Your task to perform on an android device: add a label to a message in the gmail app Image 0: 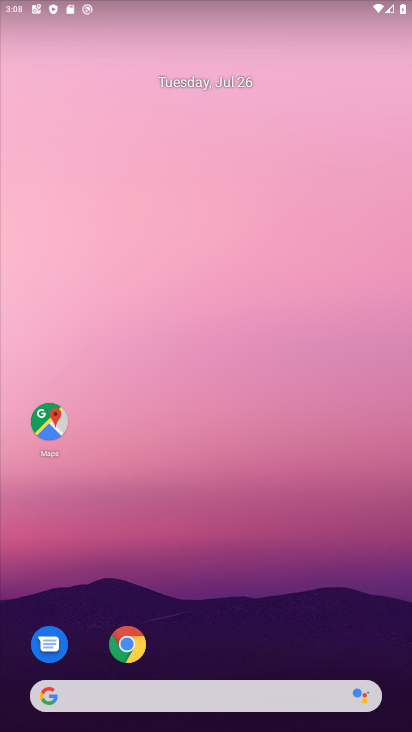
Step 0: drag from (225, 687) to (198, 179)
Your task to perform on an android device: add a label to a message in the gmail app Image 1: 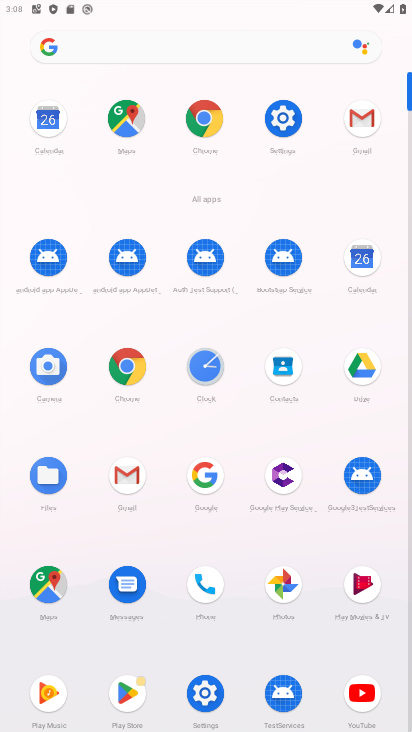
Step 1: click (369, 122)
Your task to perform on an android device: add a label to a message in the gmail app Image 2: 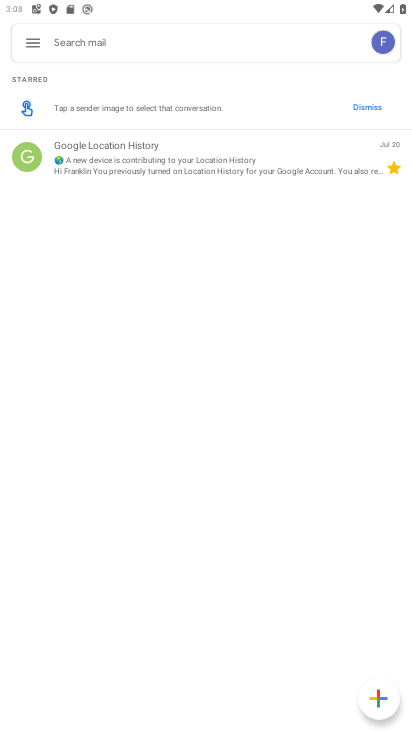
Step 2: click (24, 41)
Your task to perform on an android device: add a label to a message in the gmail app Image 3: 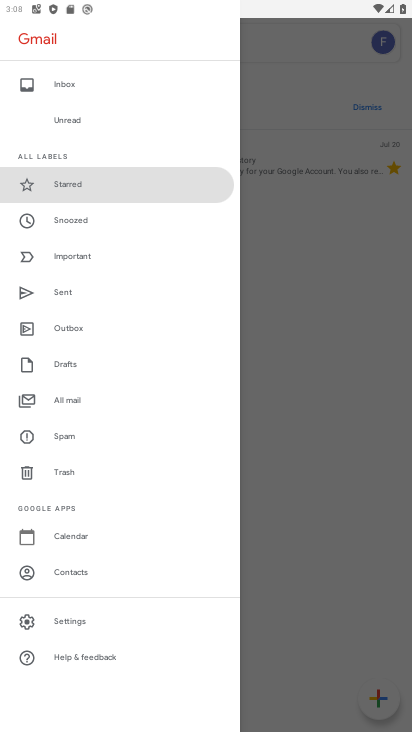
Step 3: click (82, 79)
Your task to perform on an android device: add a label to a message in the gmail app Image 4: 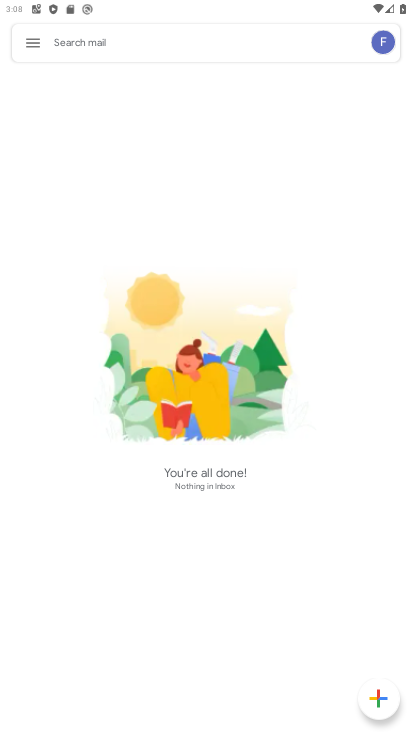
Step 4: task complete